Your task to perform on an android device: Open battery settings Image 0: 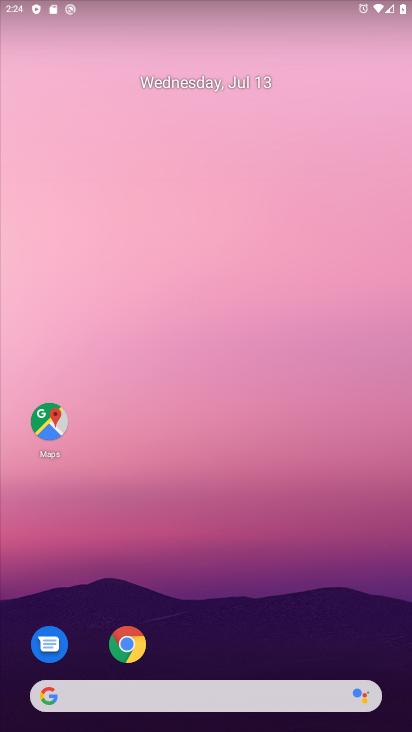
Step 0: drag from (212, 528) to (240, 108)
Your task to perform on an android device: Open battery settings Image 1: 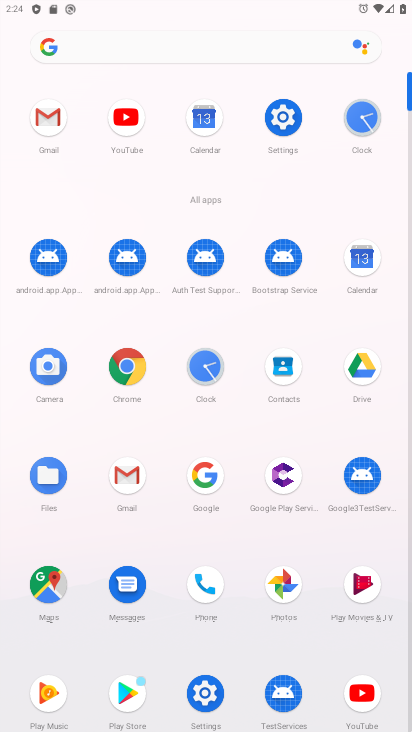
Step 1: click (272, 118)
Your task to perform on an android device: Open battery settings Image 2: 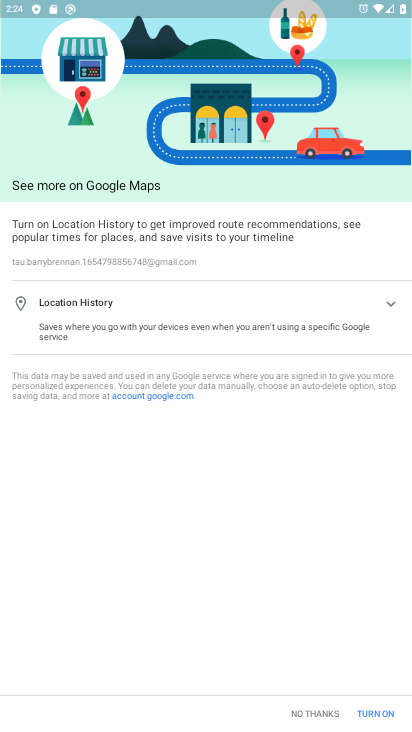
Step 2: click (314, 715)
Your task to perform on an android device: Open battery settings Image 3: 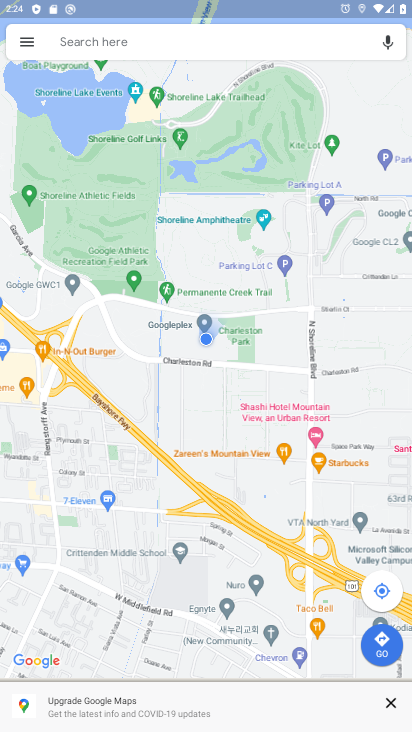
Step 3: press home button
Your task to perform on an android device: Open battery settings Image 4: 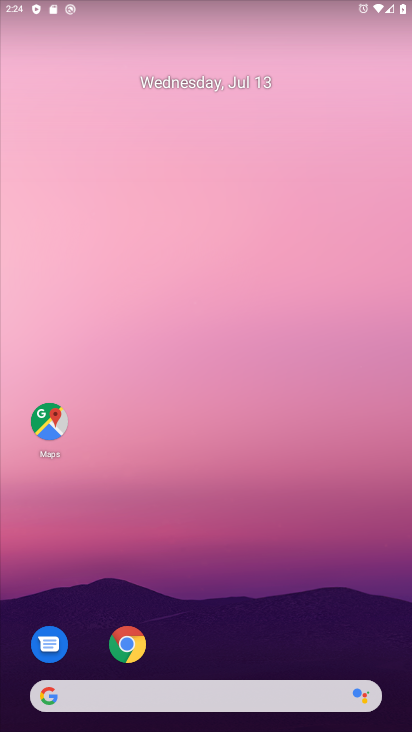
Step 4: drag from (106, 721) to (34, 258)
Your task to perform on an android device: Open battery settings Image 5: 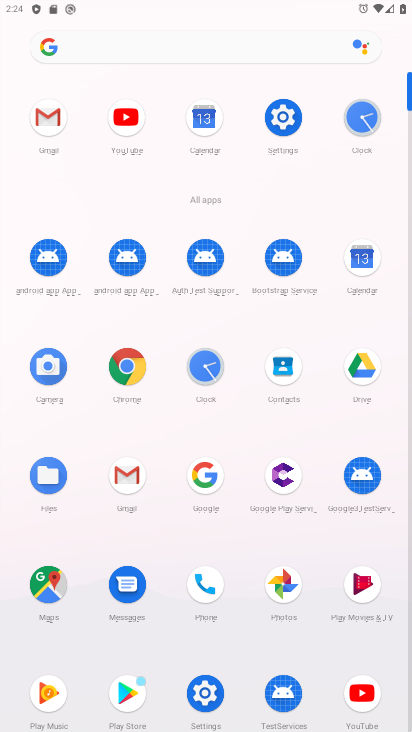
Step 5: click (274, 118)
Your task to perform on an android device: Open battery settings Image 6: 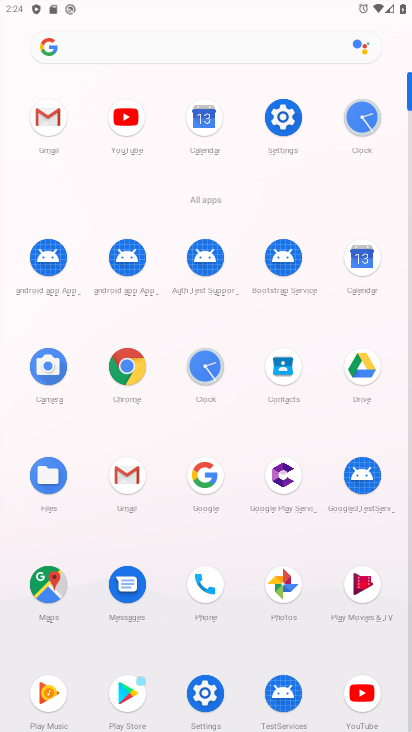
Step 6: click (274, 118)
Your task to perform on an android device: Open battery settings Image 7: 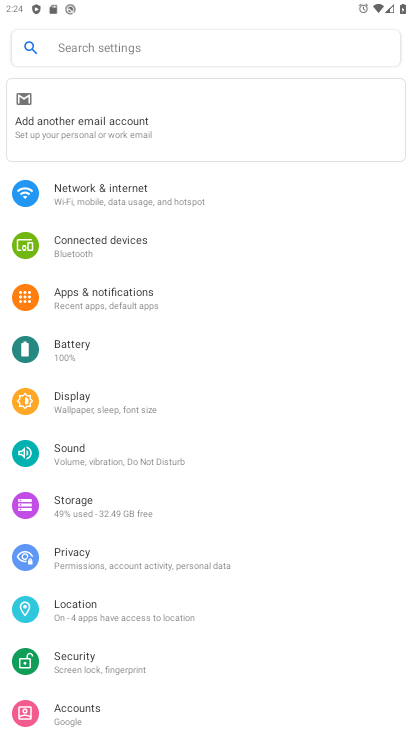
Step 7: click (122, 356)
Your task to perform on an android device: Open battery settings Image 8: 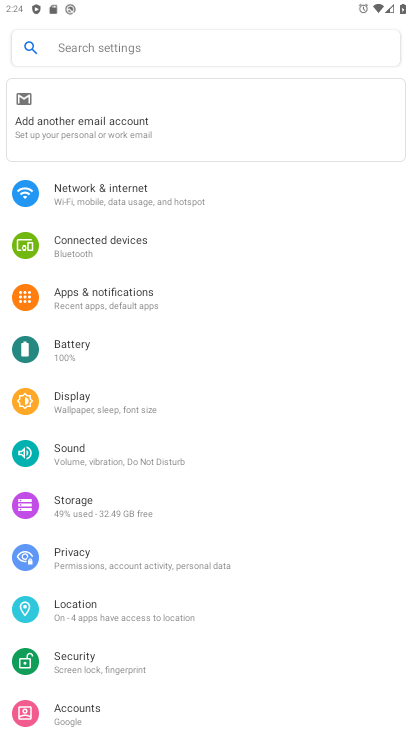
Step 8: click (122, 356)
Your task to perform on an android device: Open battery settings Image 9: 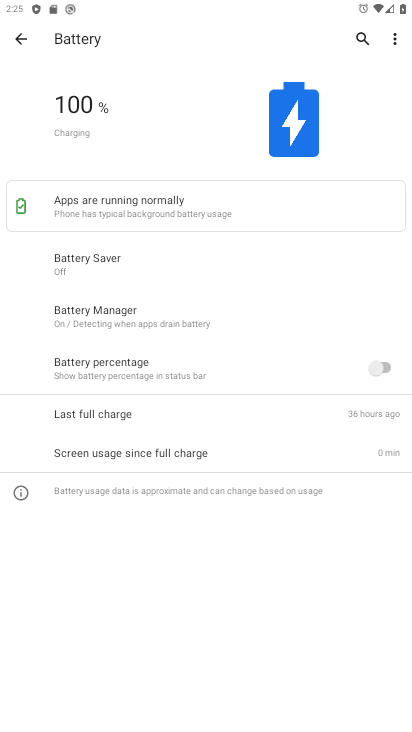
Step 9: task complete